Your task to perform on an android device: Open Google Maps and go to "Timeline" Image 0: 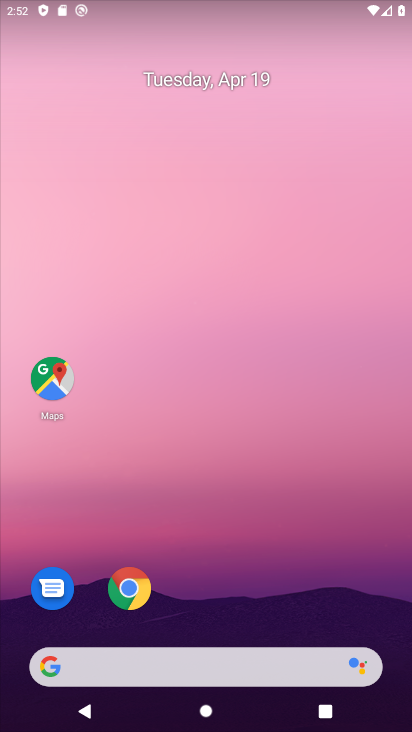
Step 0: drag from (201, 605) to (302, 63)
Your task to perform on an android device: Open Google Maps and go to "Timeline" Image 1: 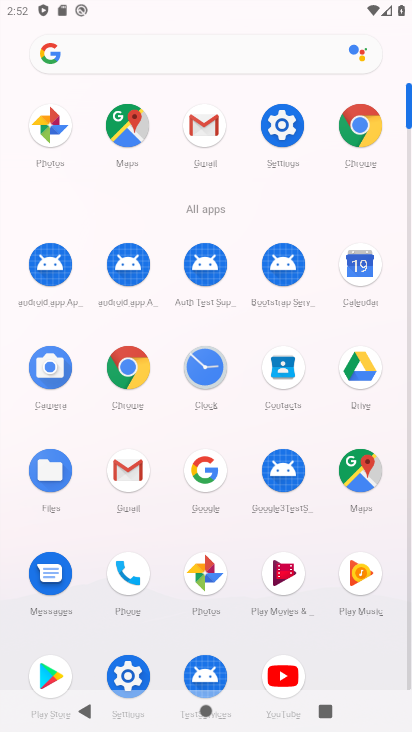
Step 1: click (366, 471)
Your task to perform on an android device: Open Google Maps and go to "Timeline" Image 2: 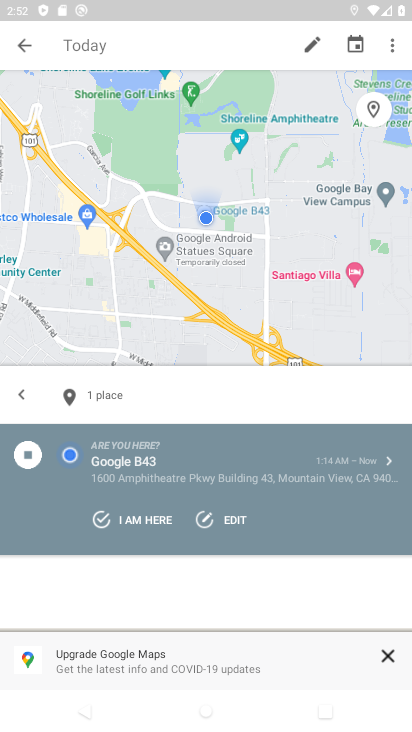
Step 2: click (388, 654)
Your task to perform on an android device: Open Google Maps and go to "Timeline" Image 3: 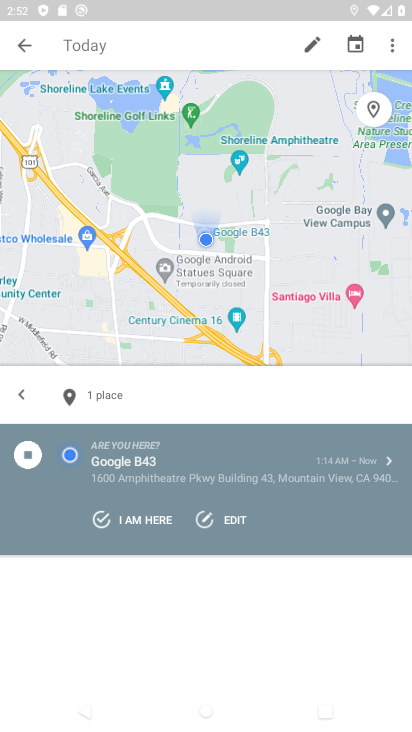
Step 3: click (28, 47)
Your task to perform on an android device: Open Google Maps and go to "Timeline" Image 4: 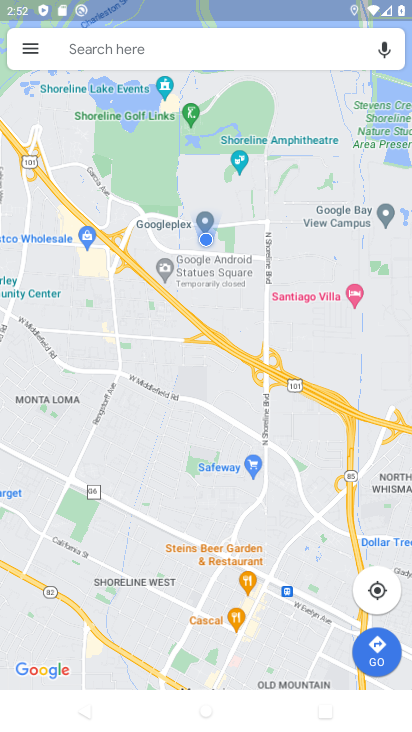
Step 4: click (27, 45)
Your task to perform on an android device: Open Google Maps and go to "Timeline" Image 5: 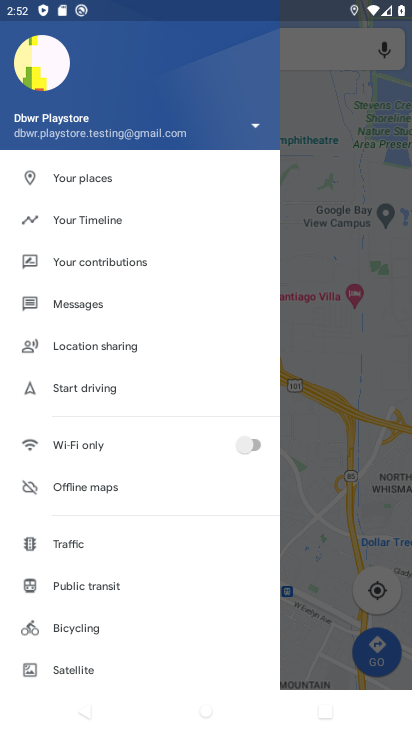
Step 5: click (106, 220)
Your task to perform on an android device: Open Google Maps and go to "Timeline" Image 6: 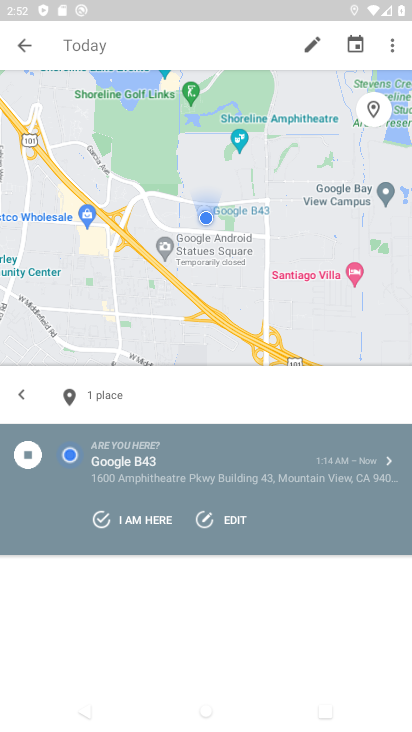
Step 6: task complete